Your task to perform on an android device: Go to sound settings Image 0: 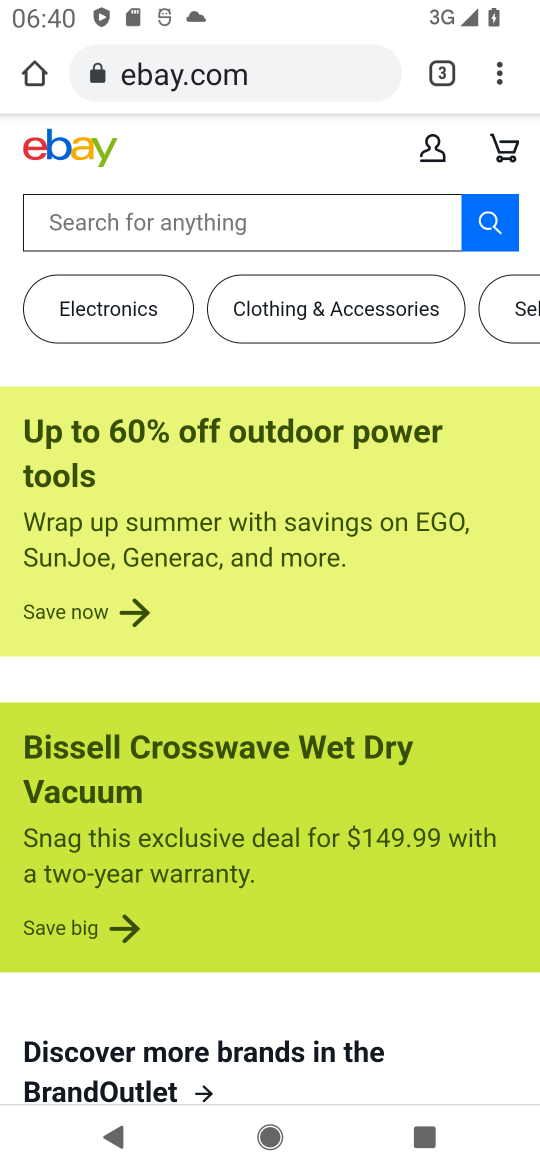
Step 0: press home button
Your task to perform on an android device: Go to sound settings Image 1: 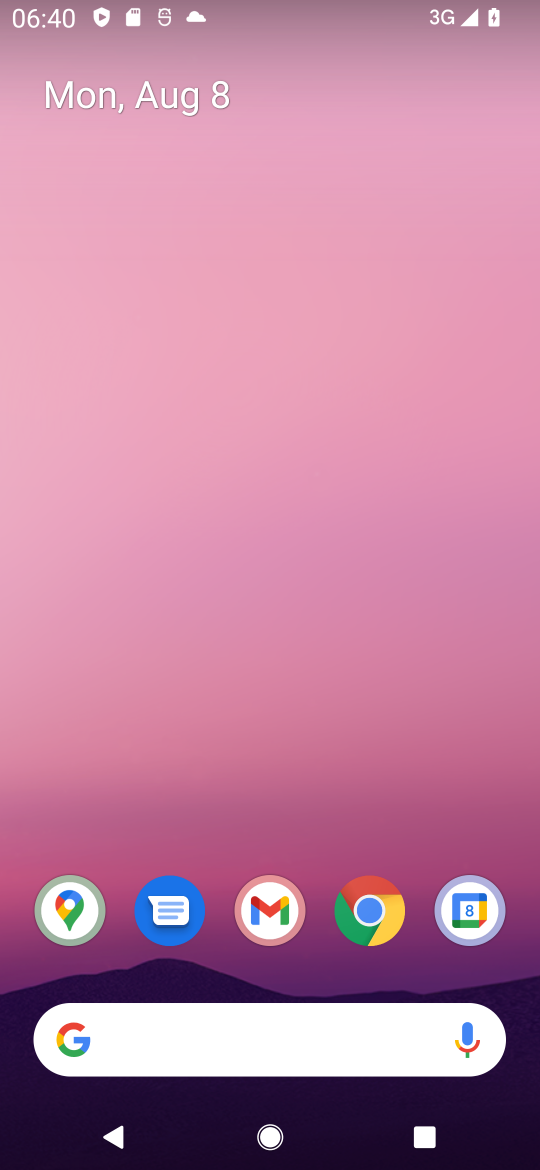
Step 1: drag from (180, 1040) to (277, 555)
Your task to perform on an android device: Go to sound settings Image 2: 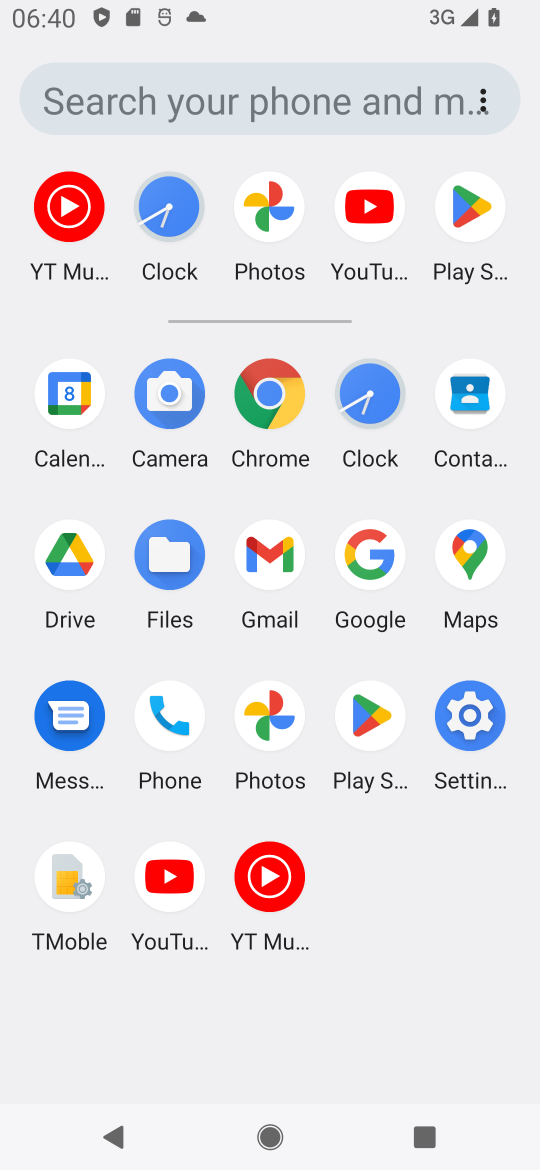
Step 2: click (471, 713)
Your task to perform on an android device: Go to sound settings Image 3: 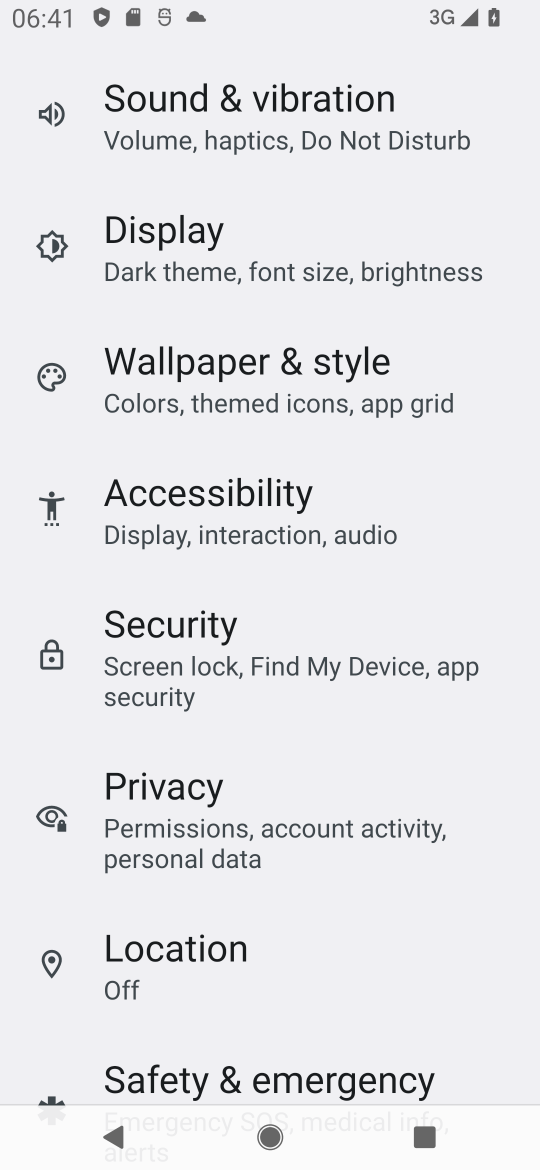
Step 3: drag from (274, 890) to (308, 714)
Your task to perform on an android device: Go to sound settings Image 4: 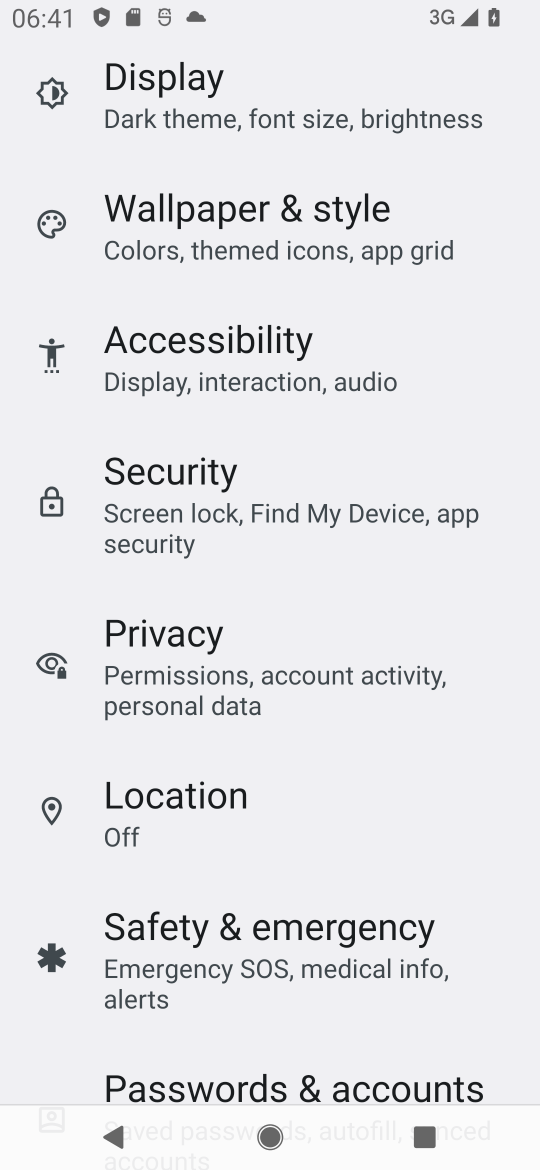
Step 4: drag from (298, 430) to (286, 722)
Your task to perform on an android device: Go to sound settings Image 5: 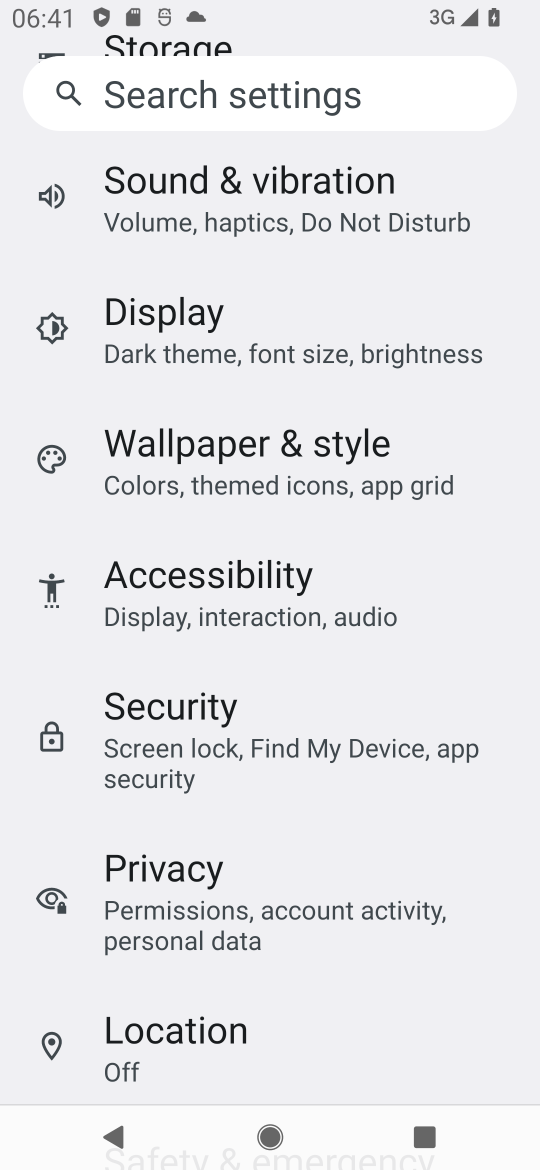
Step 5: drag from (270, 281) to (237, 619)
Your task to perform on an android device: Go to sound settings Image 6: 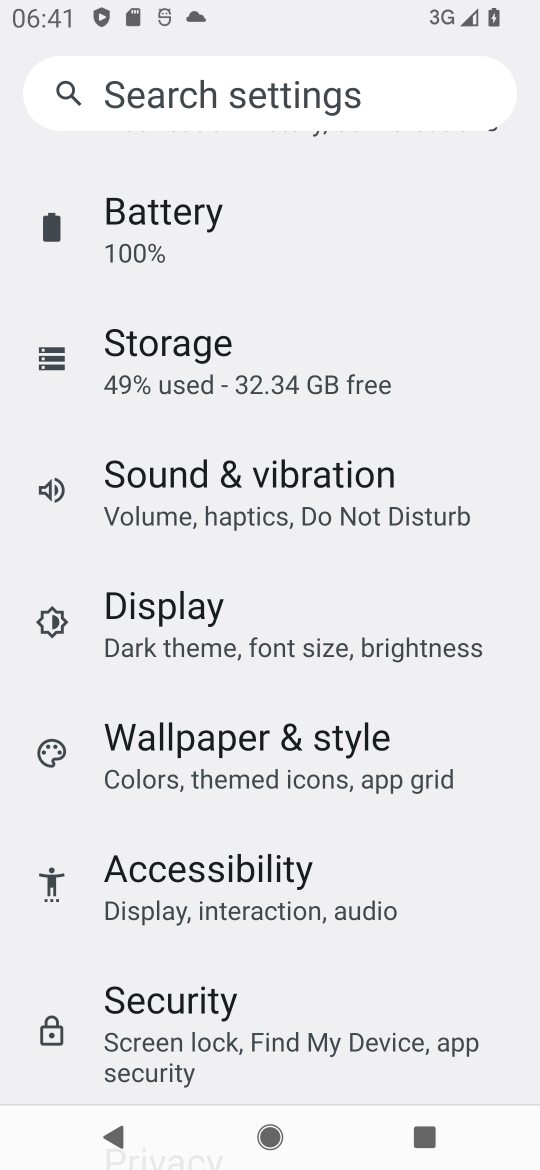
Step 6: drag from (283, 289) to (275, 557)
Your task to perform on an android device: Go to sound settings Image 7: 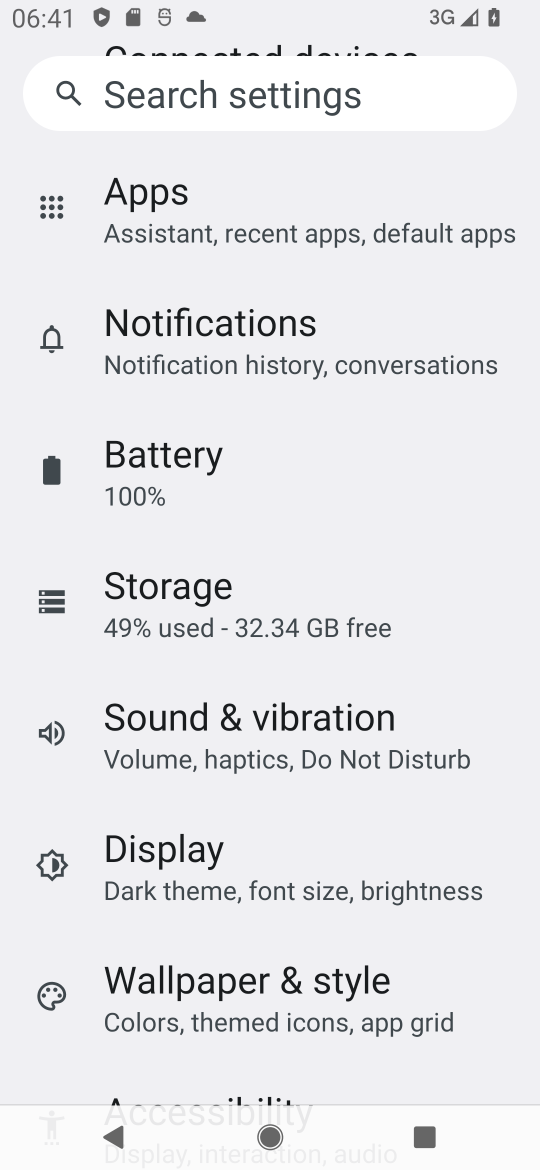
Step 7: click (206, 708)
Your task to perform on an android device: Go to sound settings Image 8: 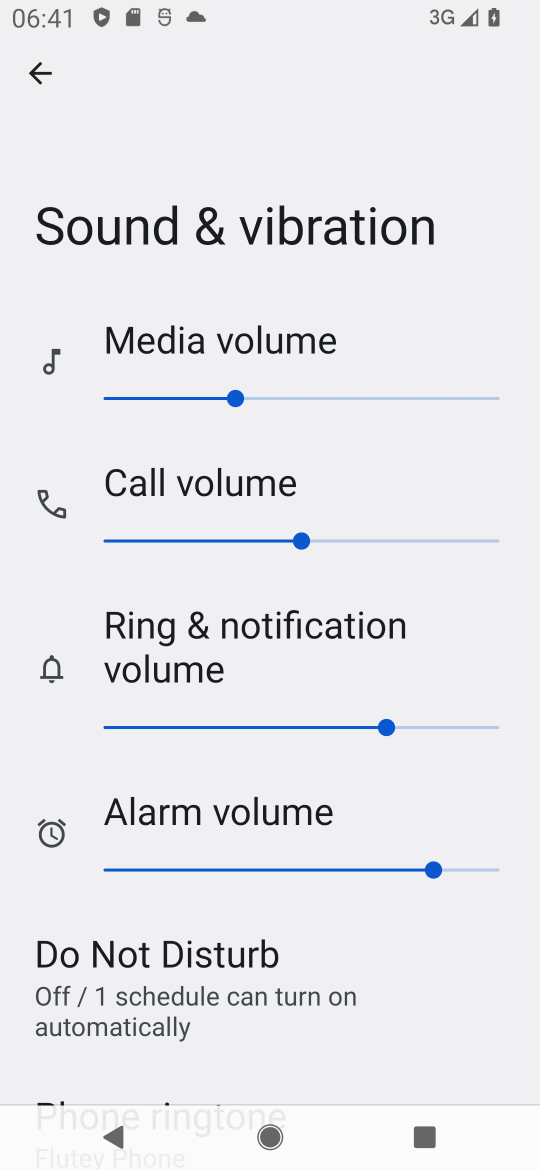
Step 8: task complete